Your task to perform on an android device: turn on priority inbox in the gmail app Image 0: 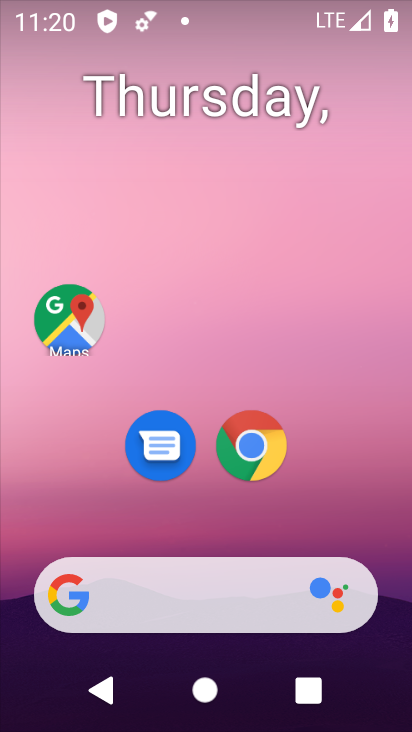
Step 0: drag from (163, 553) to (330, 16)
Your task to perform on an android device: turn on priority inbox in the gmail app Image 1: 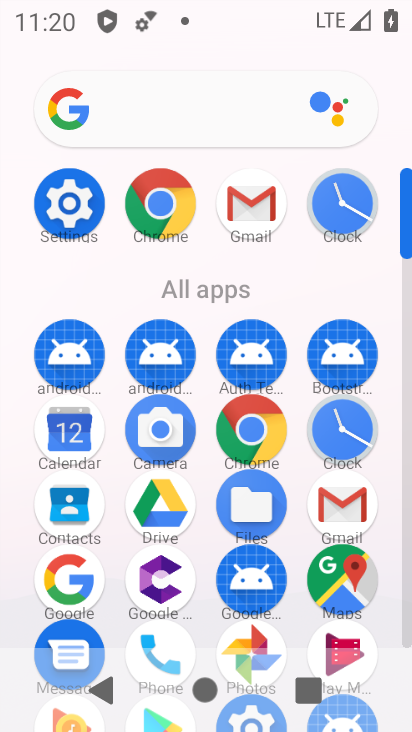
Step 1: click (338, 516)
Your task to perform on an android device: turn on priority inbox in the gmail app Image 2: 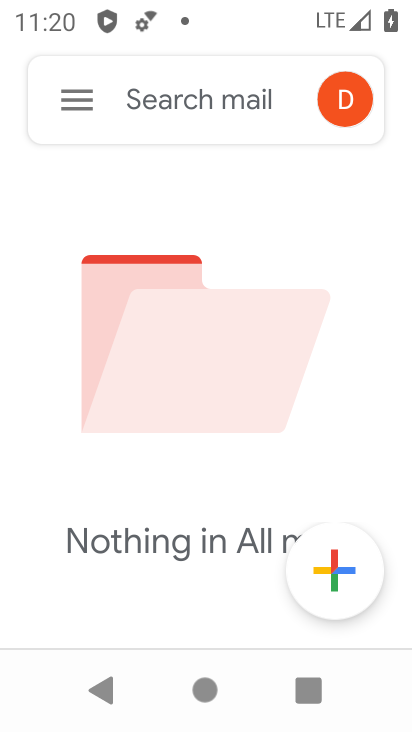
Step 2: click (78, 113)
Your task to perform on an android device: turn on priority inbox in the gmail app Image 3: 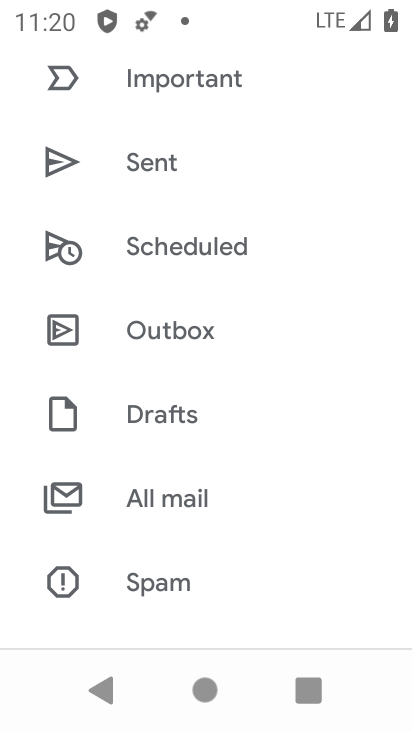
Step 3: drag from (124, 599) to (239, 211)
Your task to perform on an android device: turn on priority inbox in the gmail app Image 4: 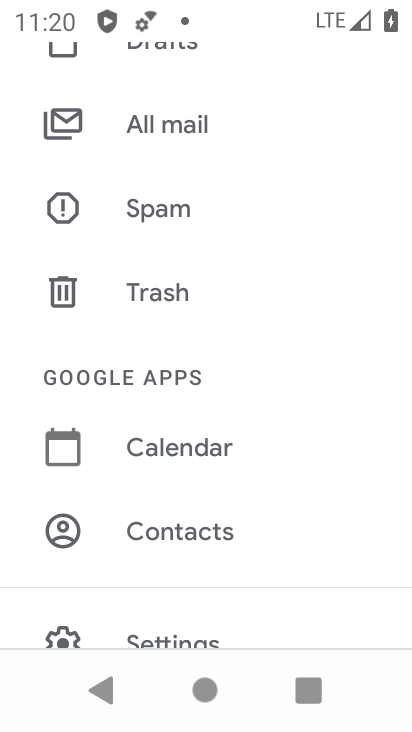
Step 4: drag from (174, 592) to (261, 321)
Your task to perform on an android device: turn on priority inbox in the gmail app Image 5: 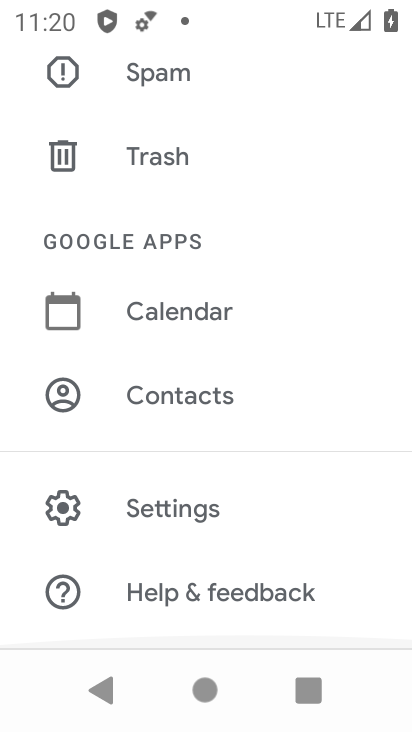
Step 5: click (212, 517)
Your task to perform on an android device: turn on priority inbox in the gmail app Image 6: 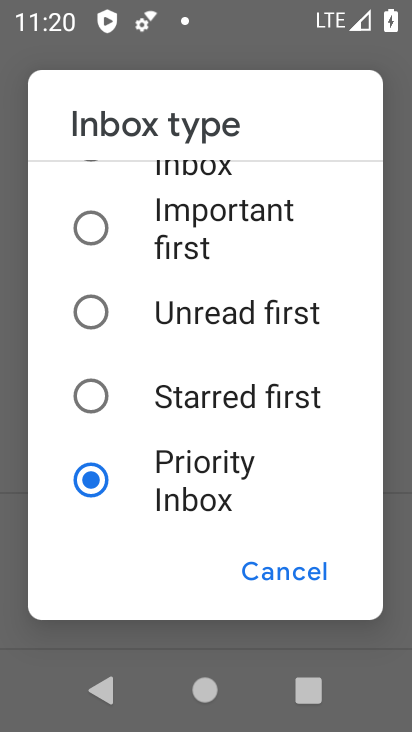
Step 6: task complete